Your task to perform on an android device: Go to sound settings Image 0: 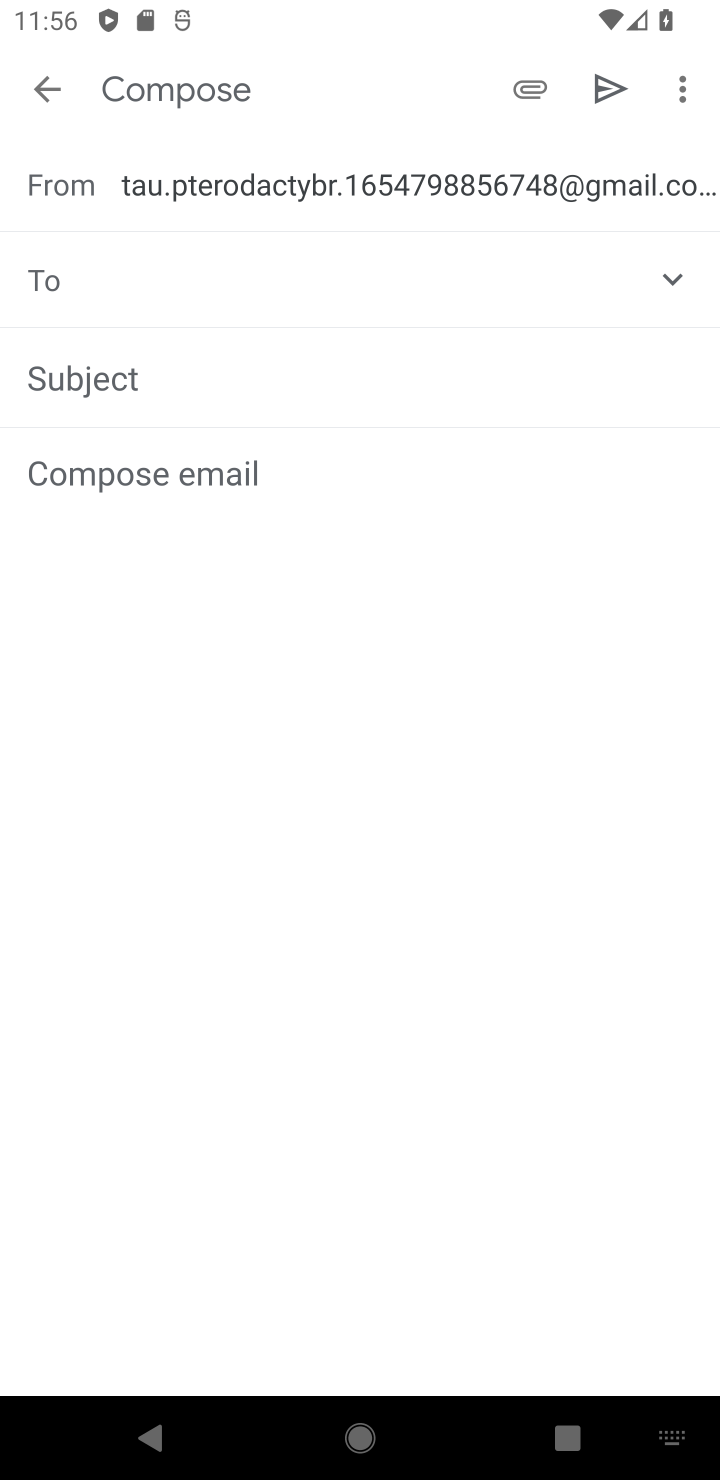
Step 0: press home button
Your task to perform on an android device: Go to sound settings Image 1: 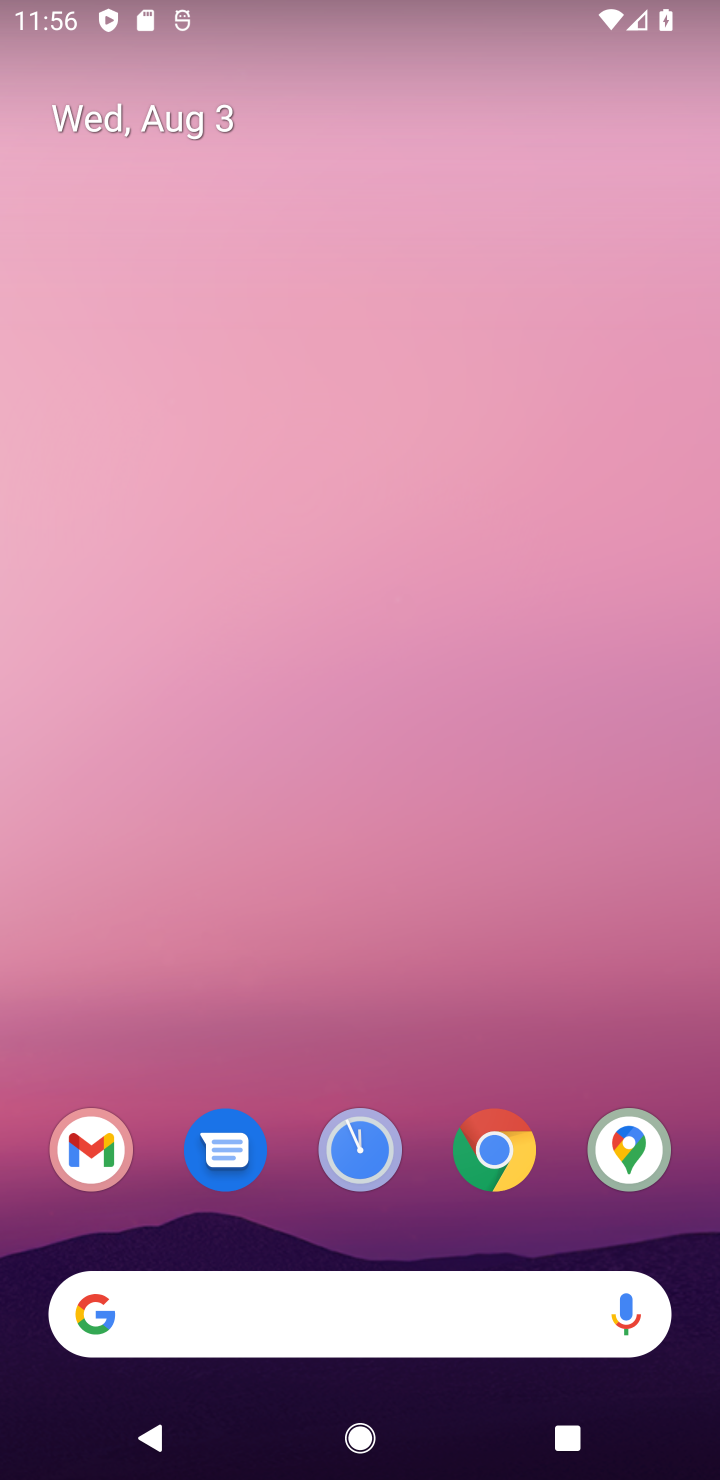
Step 1: drag from (561, 1033) to (568, 329)
Your task to perform on an android device: Go to sound settings Image 2: 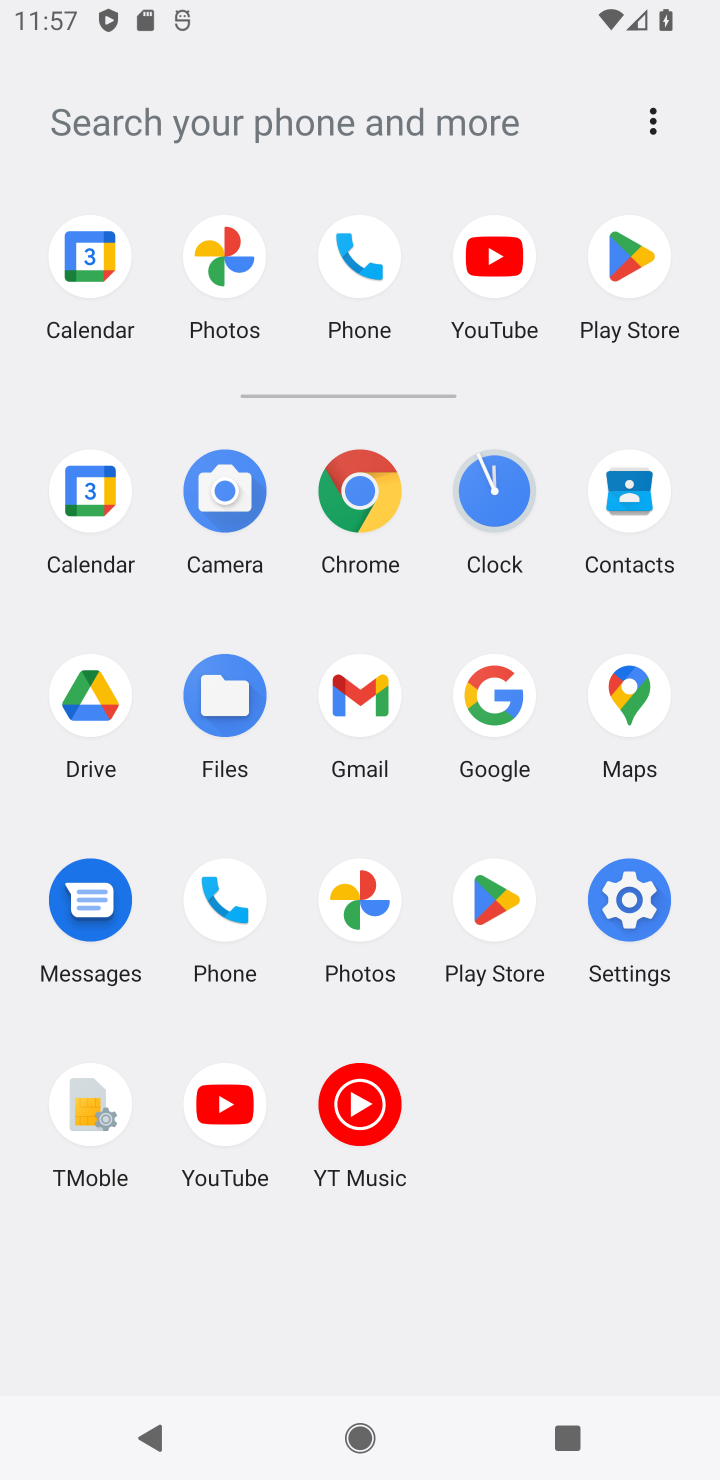
Step 2: click (631, 914)
Your task to perform on an android device: Go to sound settings Image 3: 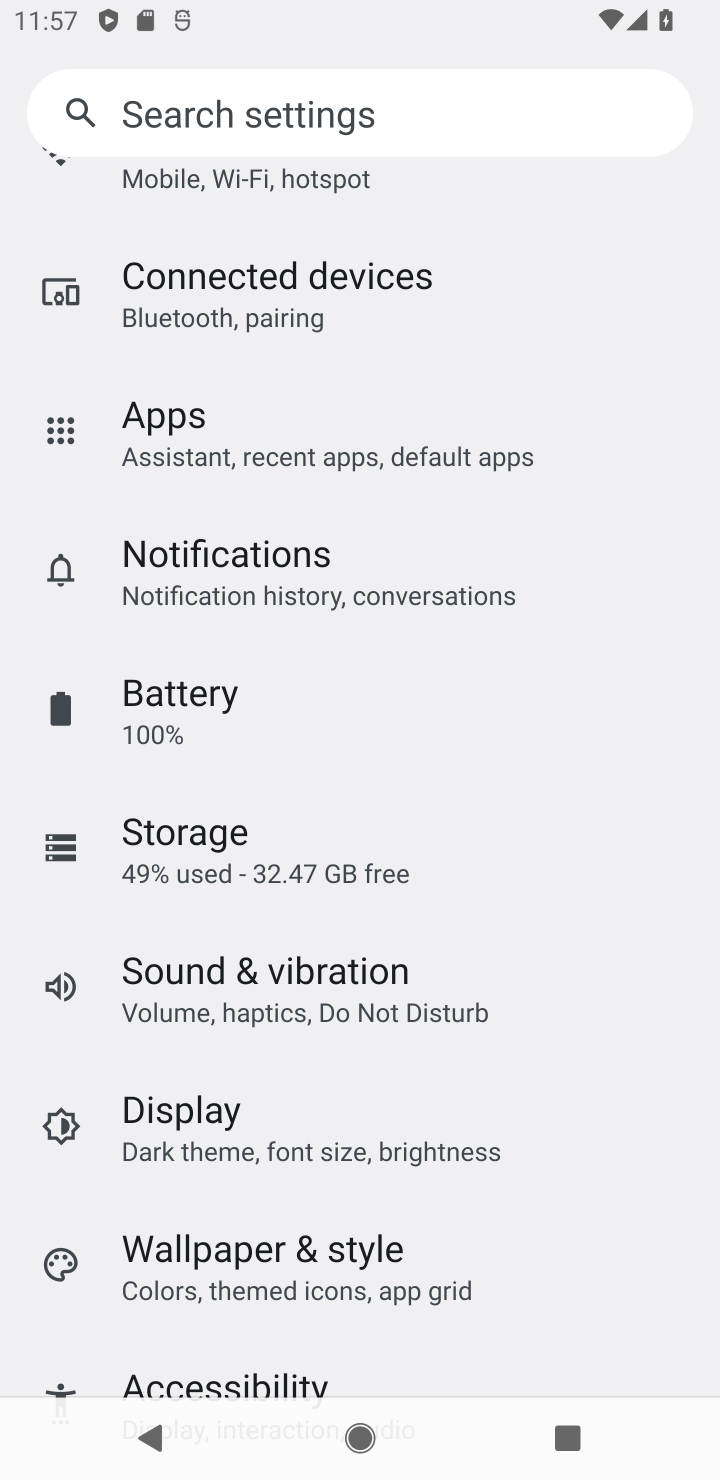
Step 3: drag from (624, 1221) to (630, 592)
Your task to perform on an android device: Go to sound settings Image 4: 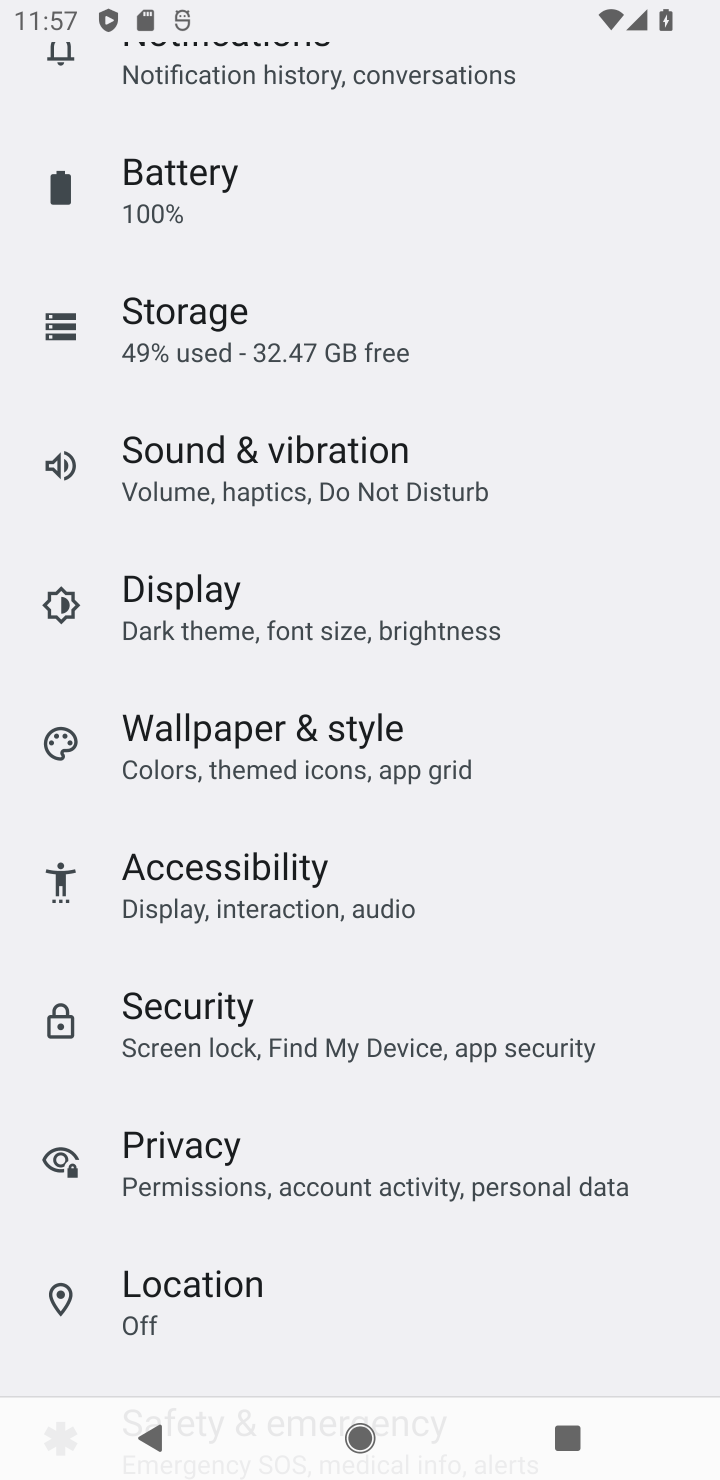
Step 4: drag from (608, 1317) to (617, 962)
Your task to perform on an android device: Go to sound settings Image 5: 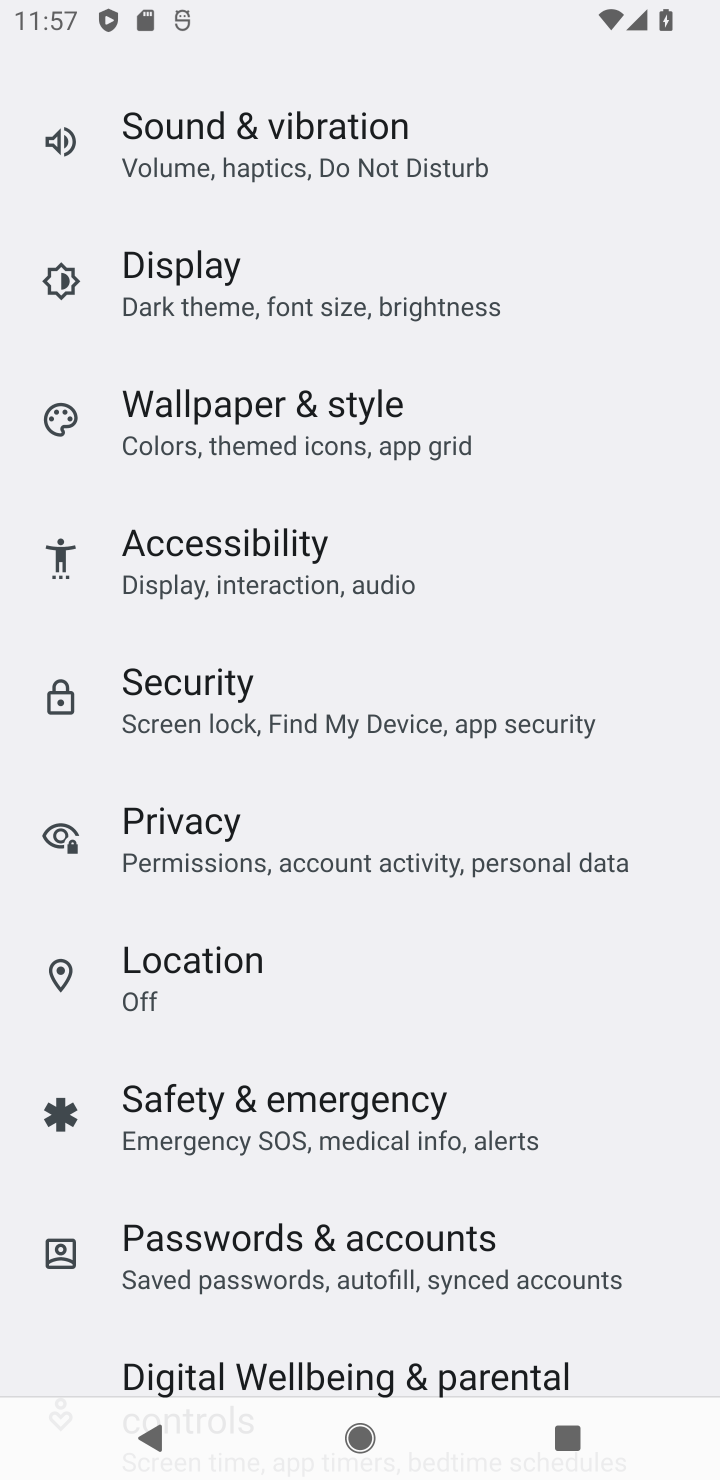
Step 5: drag from (617, 1318) to (630, 998)
Your task to perform on an android device: Go to sound settings Image 6: 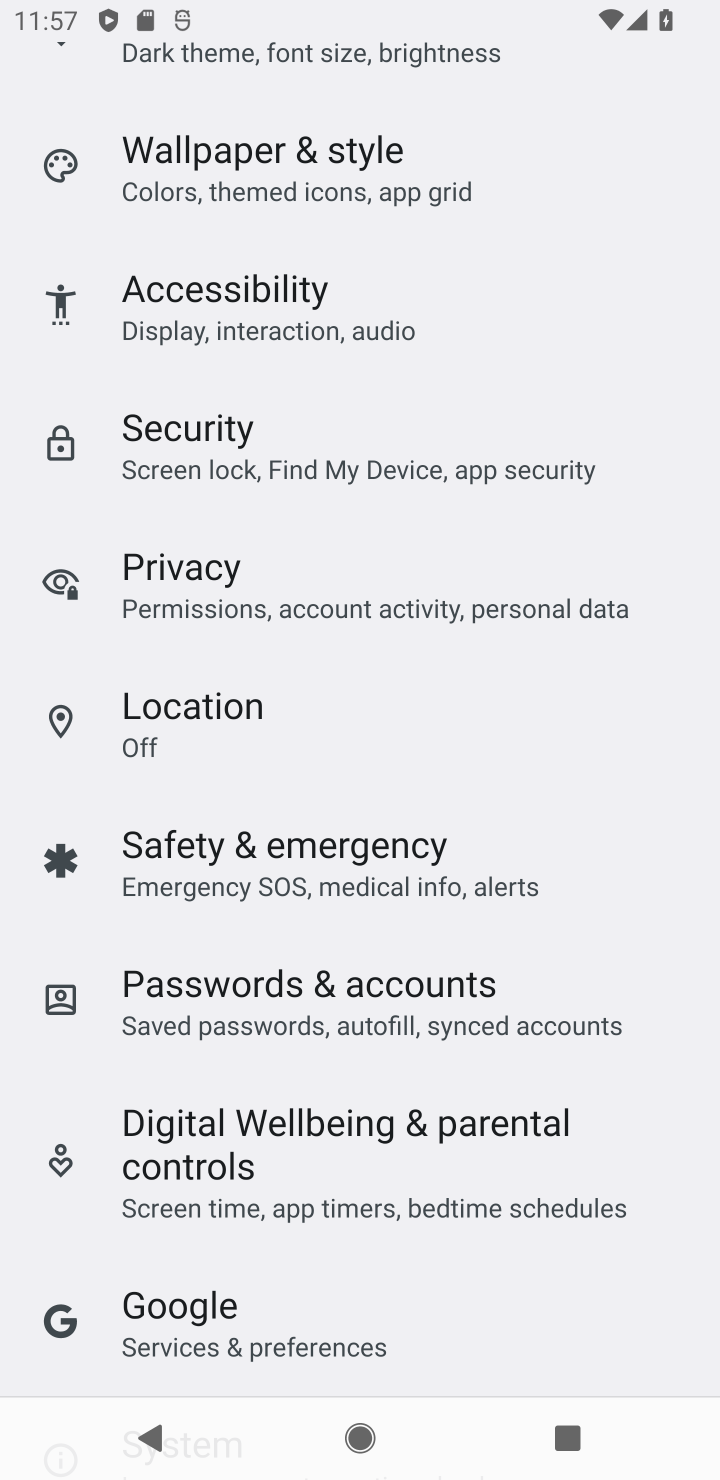
Step 6: drag from (626, 1320) to (622, 934)
Your task to perform on an android device: Go to sound settings Image 7: 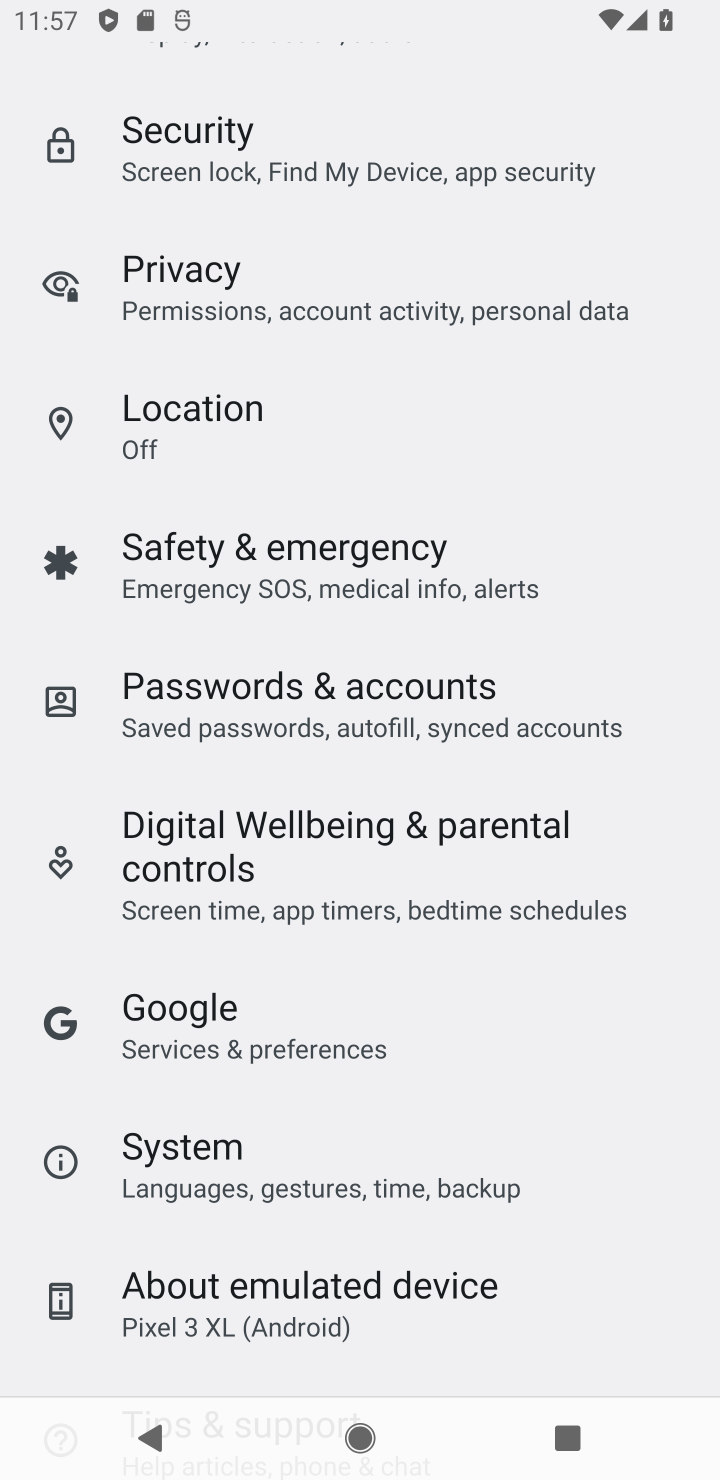
Step 7: drag from (625, 1252) to (628, 978)
Your task to perform on an android device: Go to sound settings Image 8: 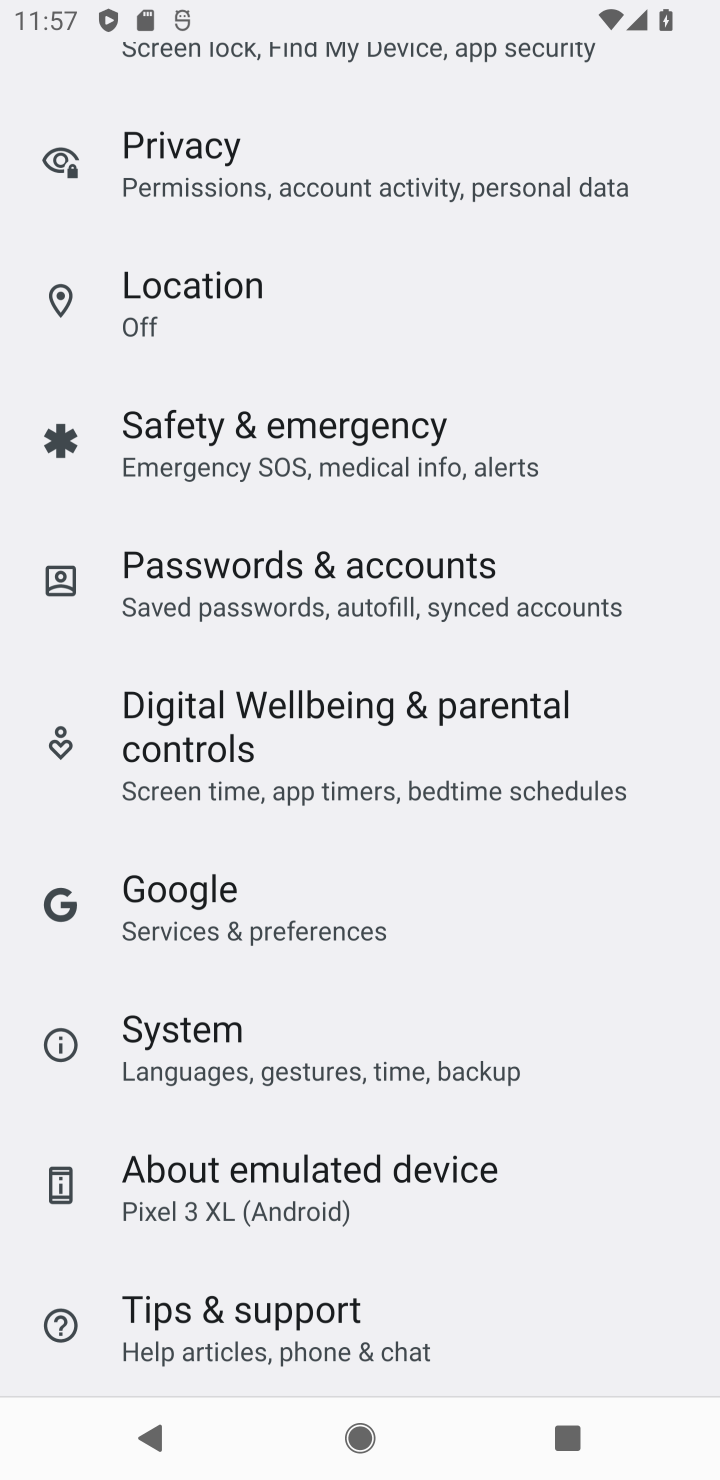
Step 8: drag from (647, 868) to (649, 1053)
Your task to perform on an android device: Go to sound settings Image 9: 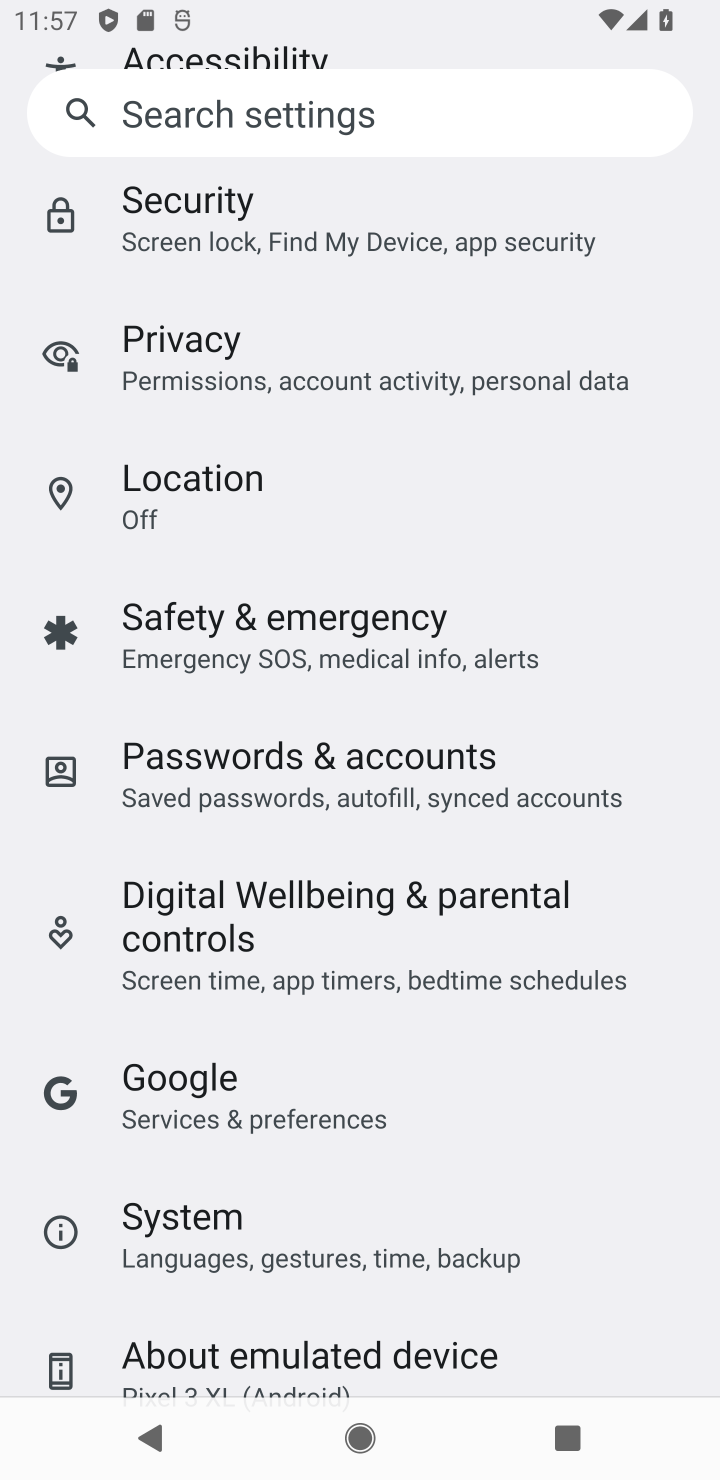
Step 9: drag from (659, 774) to (661, 939)
Your task to perform on an android device: Go to sound settings Image 10: 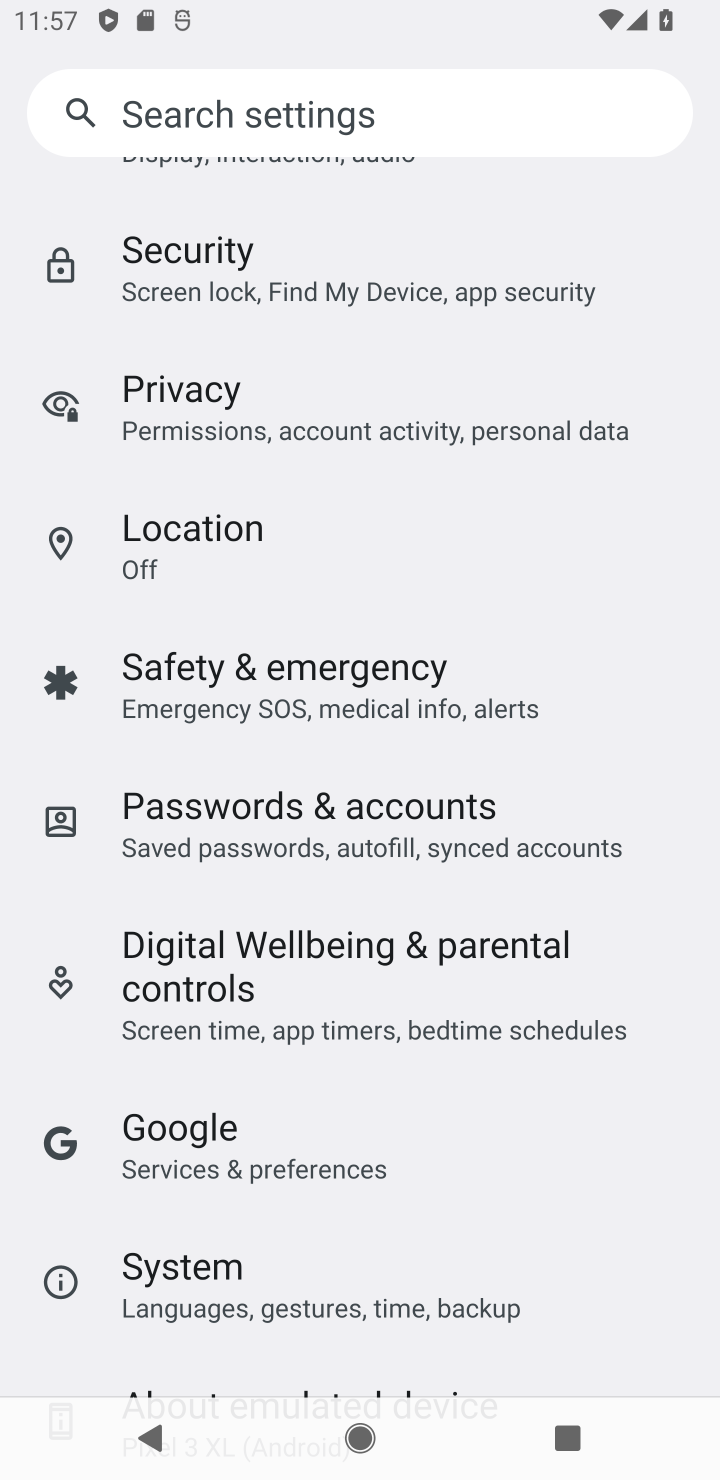
Step 10: drag from (643, 633) to (641, 880)
Your task to perform on an android device: Go to sound settings Image 11: 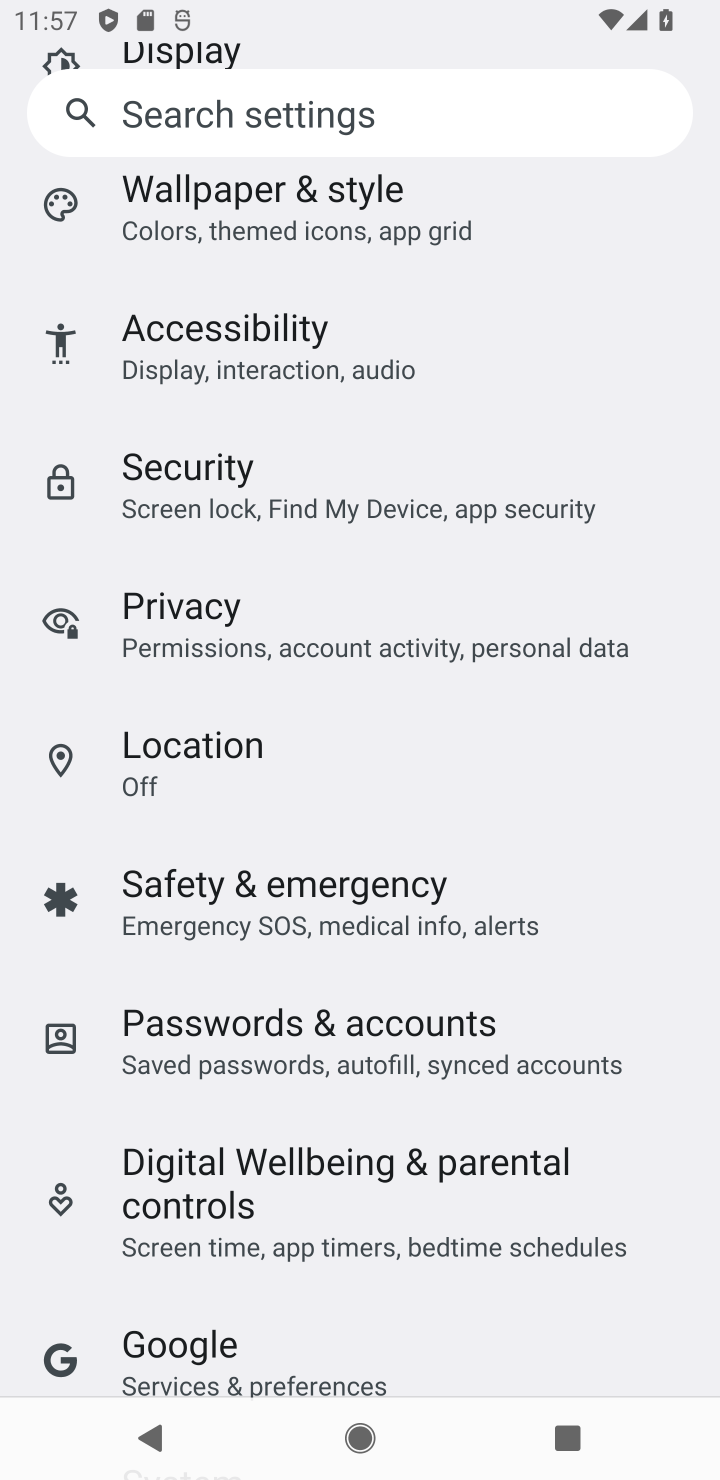
Step 11: drag from (641, 584) to (639, 873)
Your task to perform on an android device: Go to sound settings Image 12: 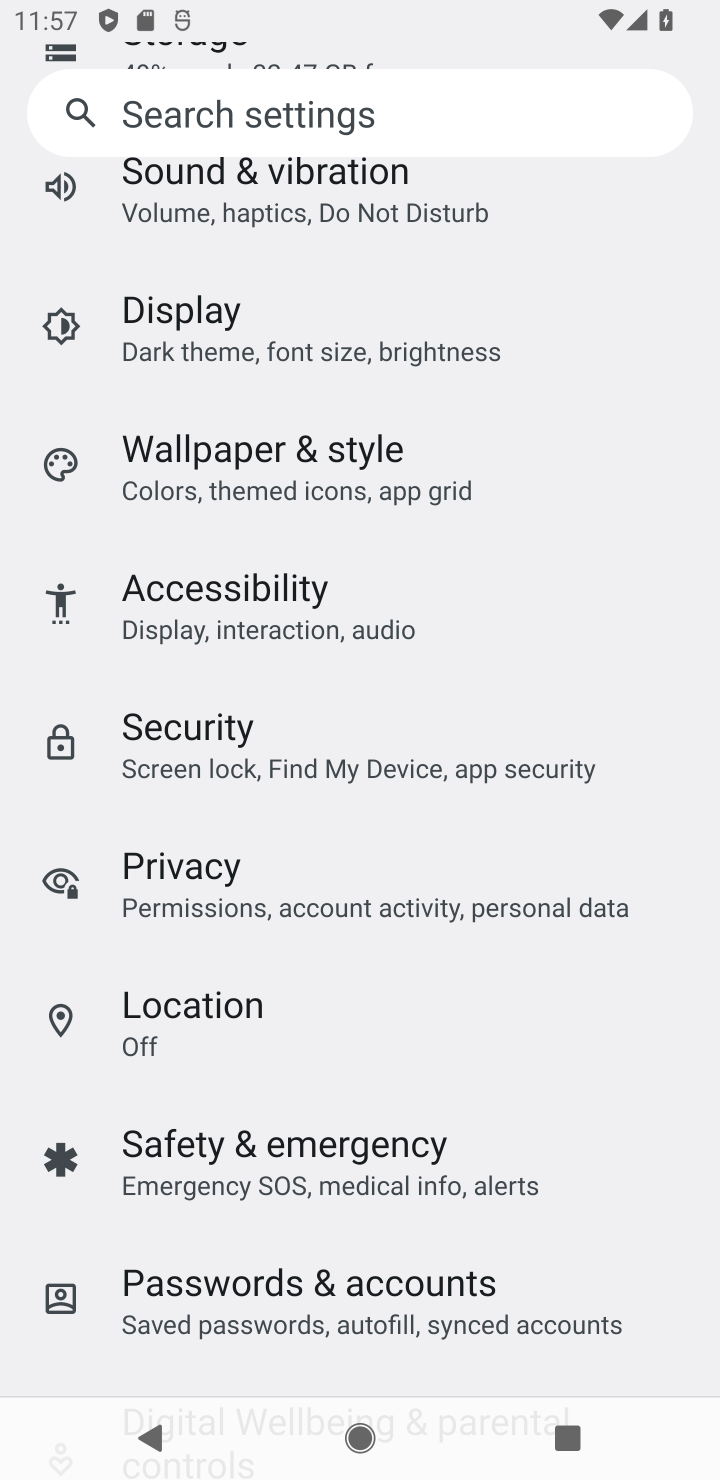
Step 12: drag from (641, 502) to (635, 854)
Your task to perform on an android device: Go to sound settings Image 13: 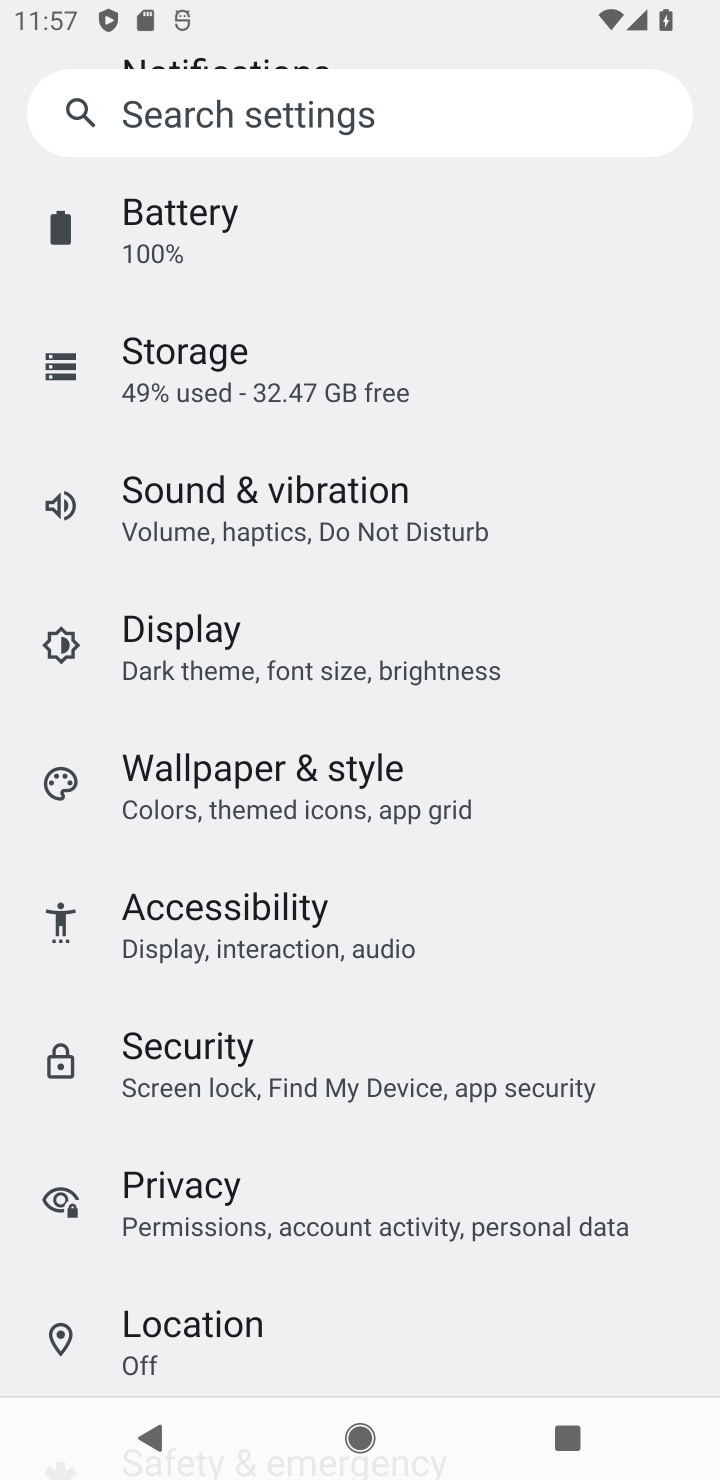
Step 13: drag from (618, 435) to (618, 778)
Your task to perform on an android device: Go to sound settings Image 14: 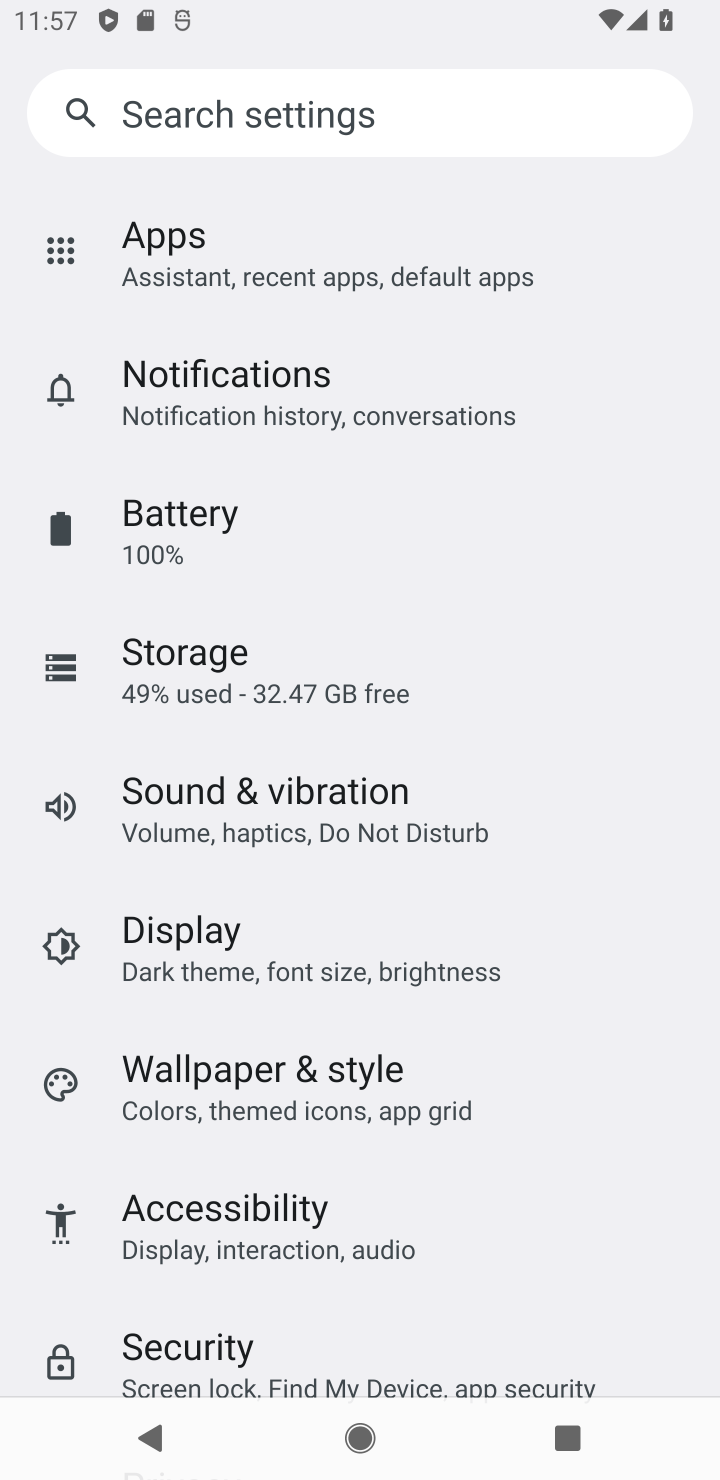
Step 14: drag from (618, 423) to (572, 857)
Your task to perform on an android device: Go to sound settings Image 15: 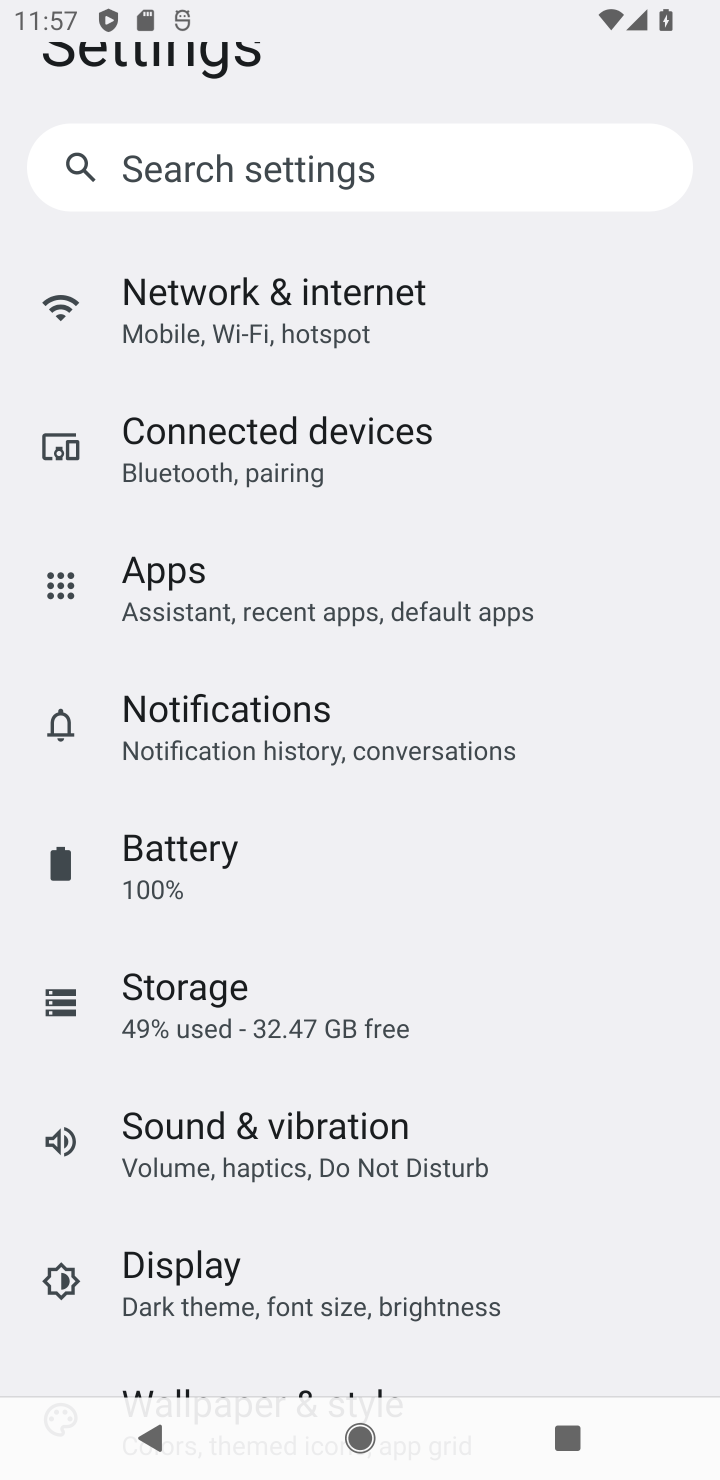
Step 15: drag from (549, 1039) to (564, 750)
Your task to perform on an android device: Go to sound settings Image 16: 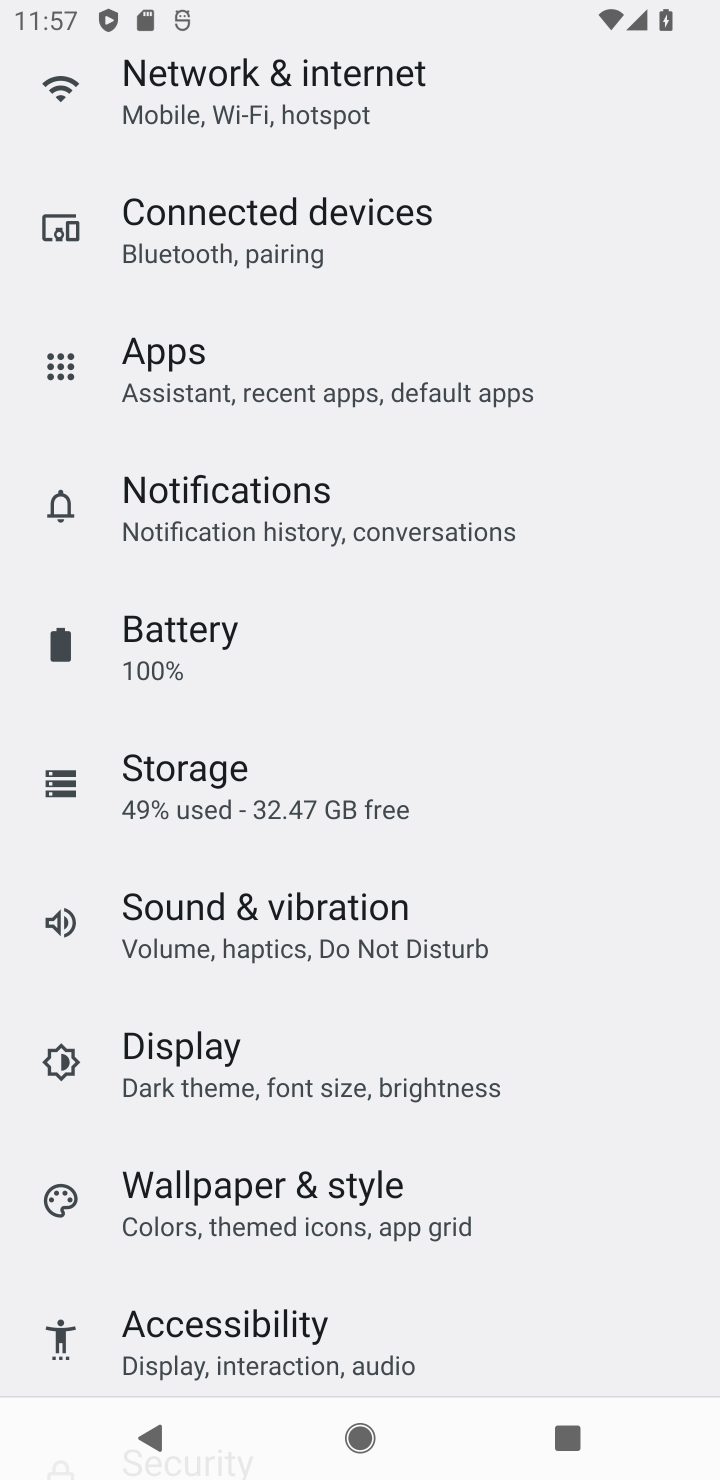
Step 16: click (456, 928)
Your task to perform on an android device: Go to sound settings Image 17: 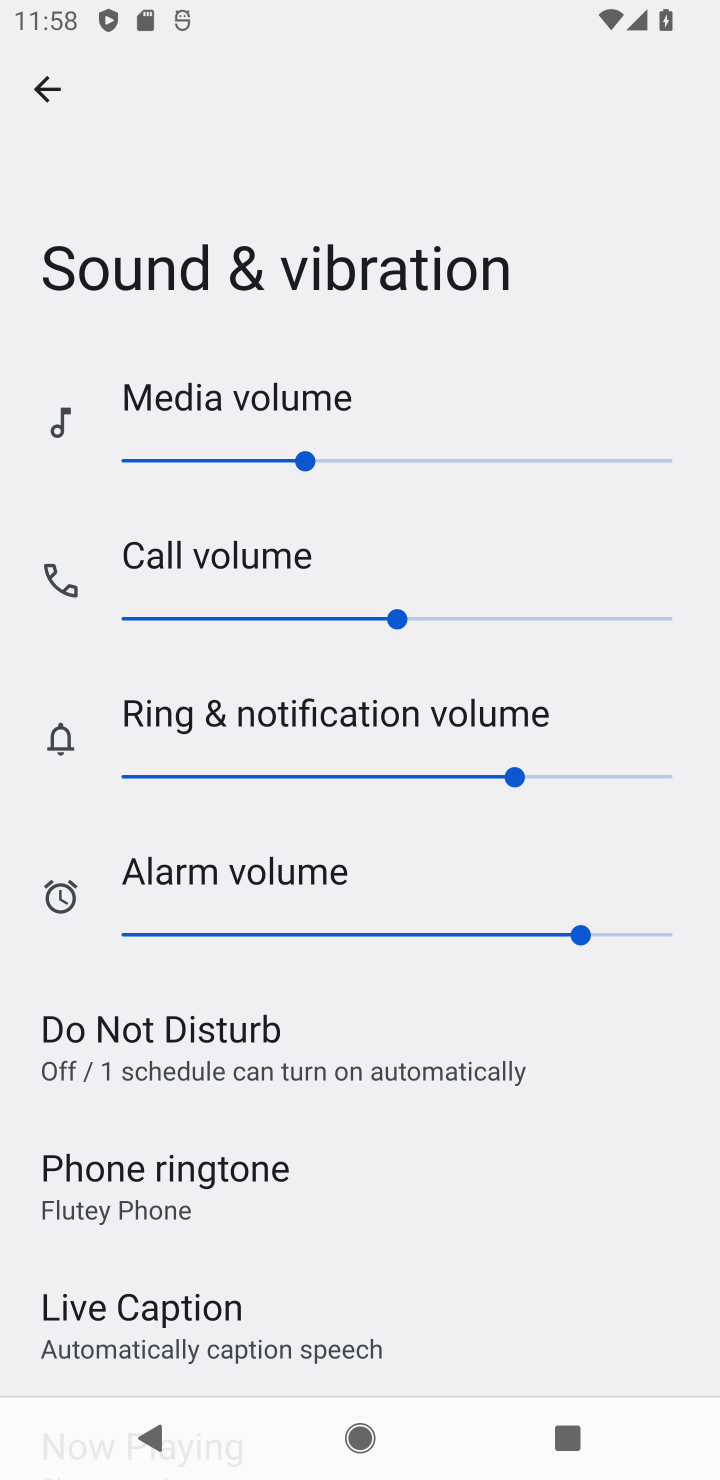
Step 17: task complete